Your task to perform on an android device: check storage Image 0: 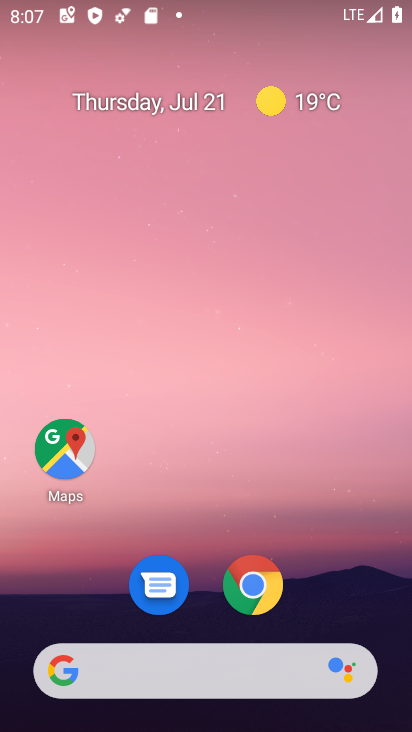
Step 0: drag from (339, 566) to (325, 58)
Your task to perform on an android device: check storage Image 1: 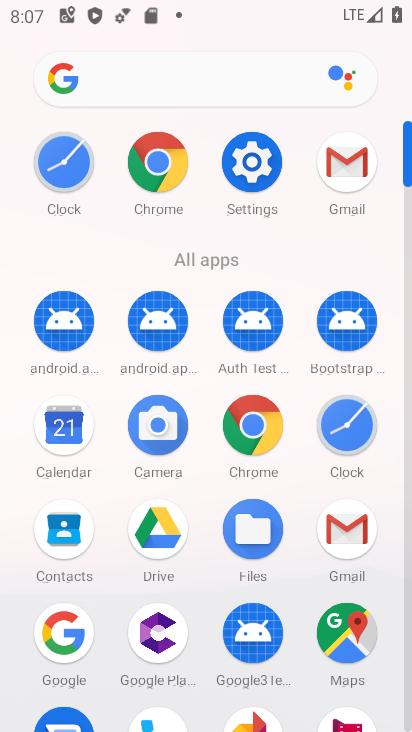
Step 1: click (258, 174)
Your task to perform on an android device: check storage Image 2: 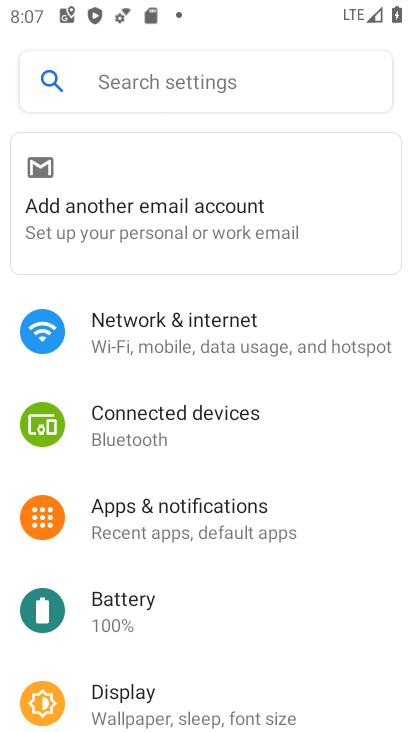
Step 2: drag from (234, 567) to (244, 131)
Your task to perform on an android device: check storage Image 3: 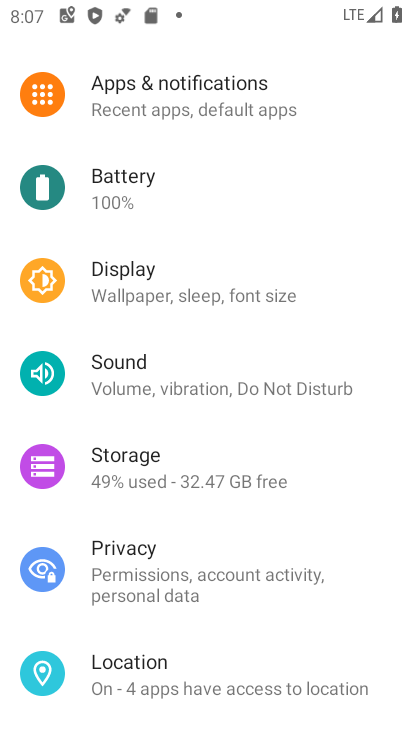
Step 3: click (213, 468)
Your task to perform on an android device: check storage Image 4: 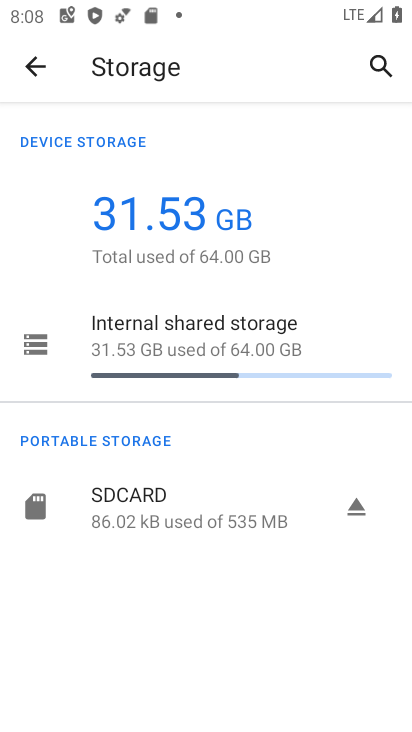
Step 4: task complete